Your task to perform on an android device: toggle notification dots Image 0: 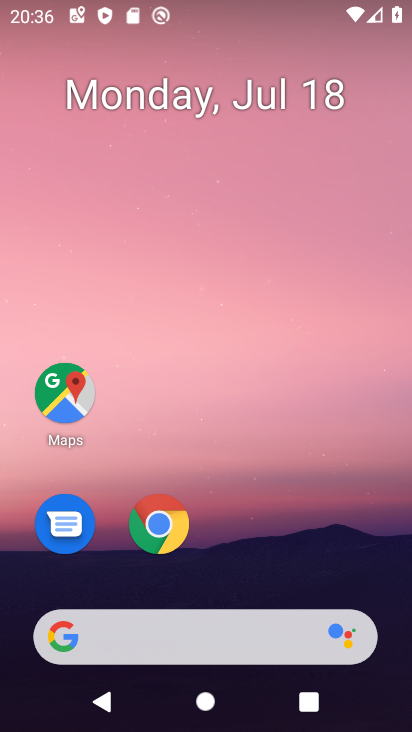
Step 0: drag from (234, 529) to (254, 68)
Your task to perform on an android device: toggle notification dots Image 1: 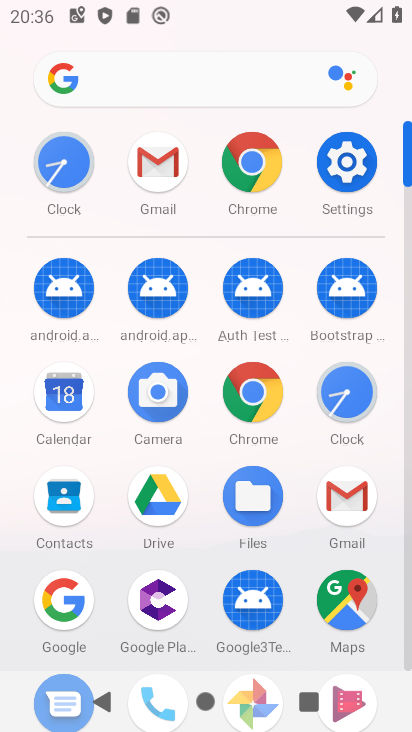
Step 1: click (334, 159)
Your task to perform on an android device: toggle notification dots Image 2: 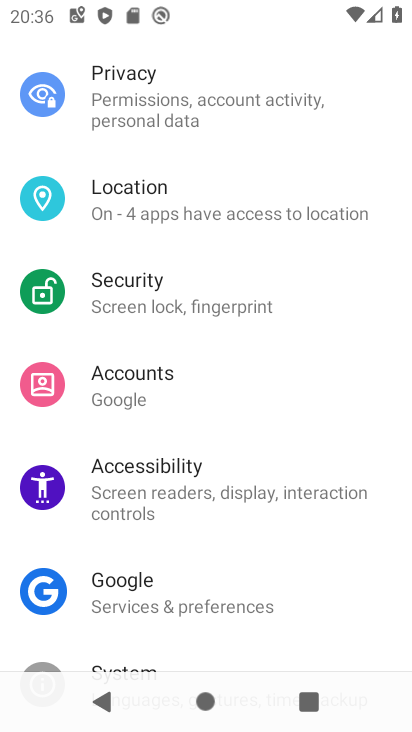
Step 2: drag from (230, 161) to (274, 661)
Your task to perform on an android device: toggle notification dots Image 3: 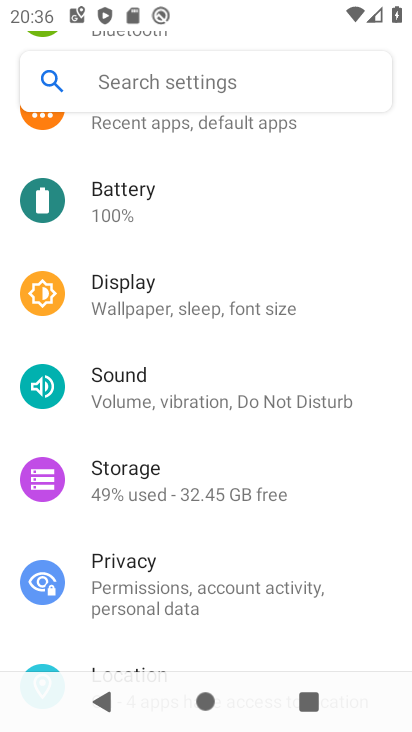
Step 3: drag from (236, 215) to (274, 563)
Your task to perform on an android device: toggle notification dots Image 4: 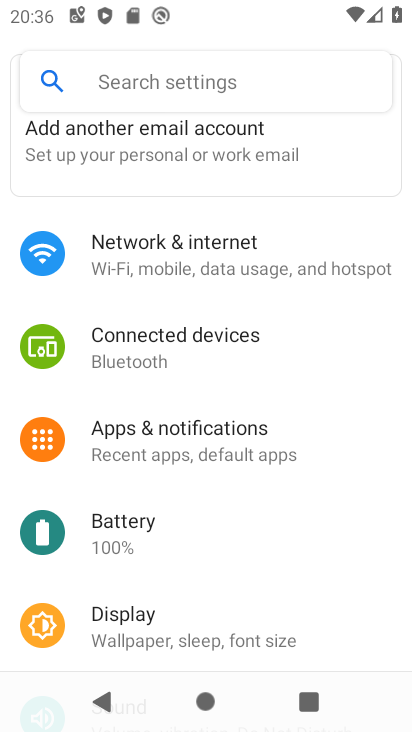
Step 4: click (231, 434)
Your task to perform on an android device: toggle notification dots Image 5: 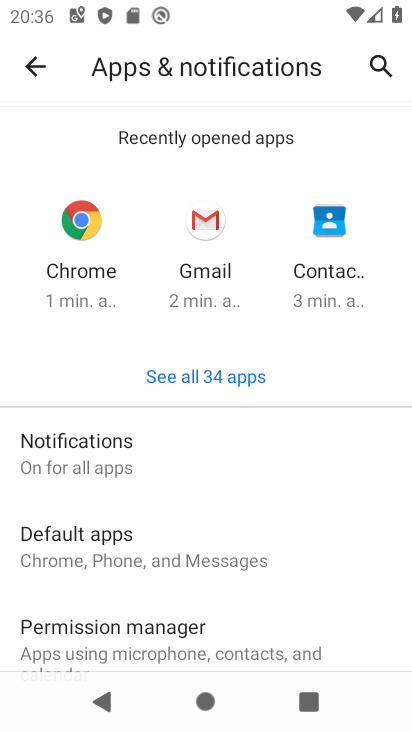
Step 5: click (115, 452)
Your task to perform on an android device: toggle notification dots Image 6: 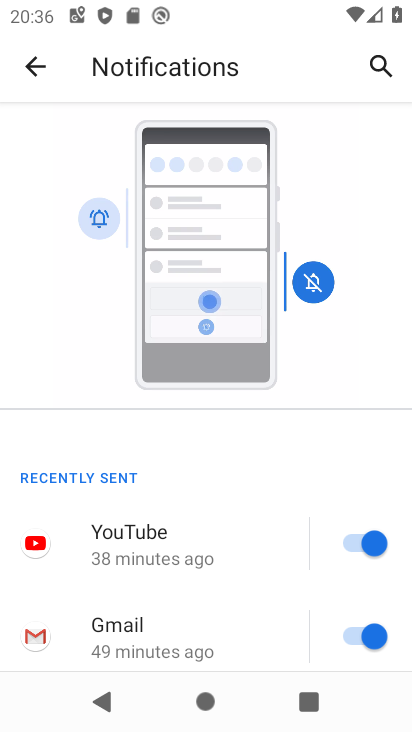
Step 6: drag from (241, 564) to (225, 137)
Your task to perform on an android device: toggle notification dots Image 7: 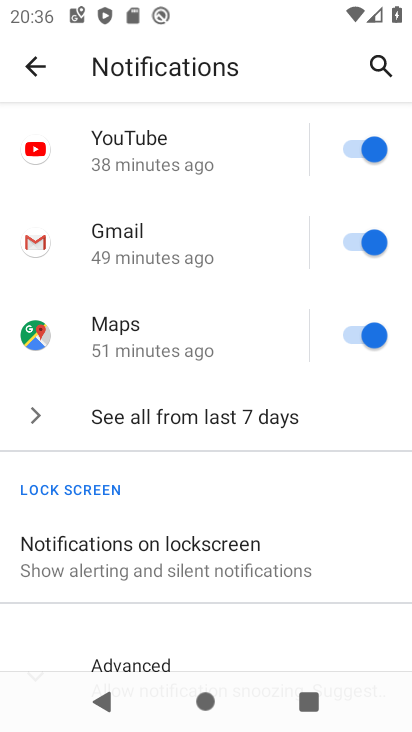
Step 7: drag from (201, 491) to (211, 167)
Your task to perform on an android device: toggle notification dots Image 8: 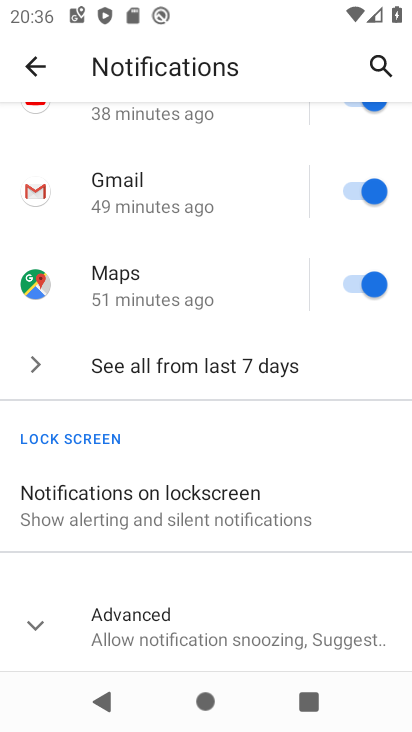
Step 8: click (36, 618)
Your task to perform on an android device: toggle notification dots Image 9: 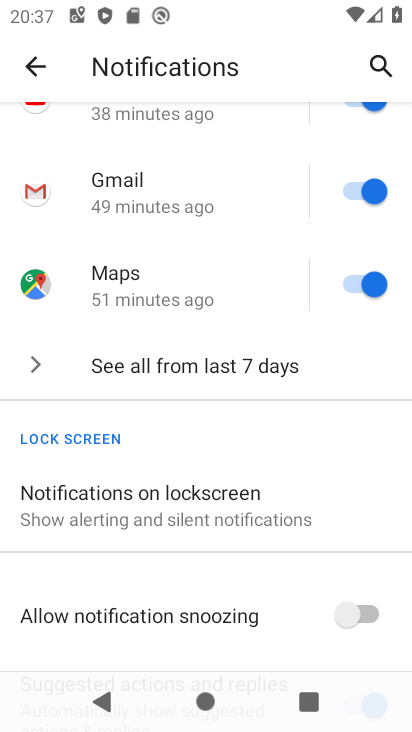
Step 9: drag from (199, 567) to (217, 302)
Your task to perform on an android device: toggle notification dots Image 10: 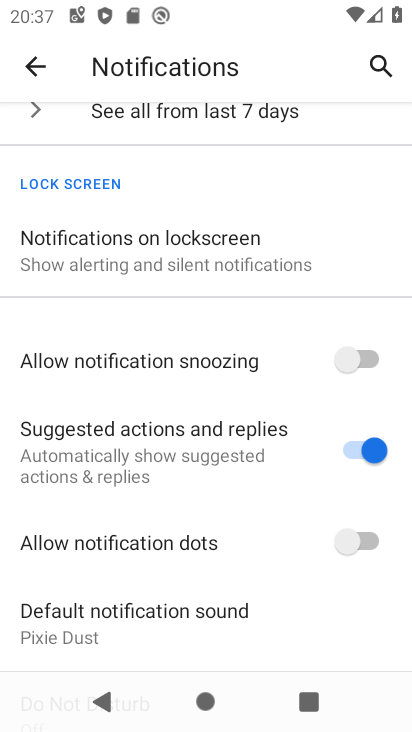
Step 10: click (359, 537)
Your task to perform on an android device: toggle notification dots Image 11: 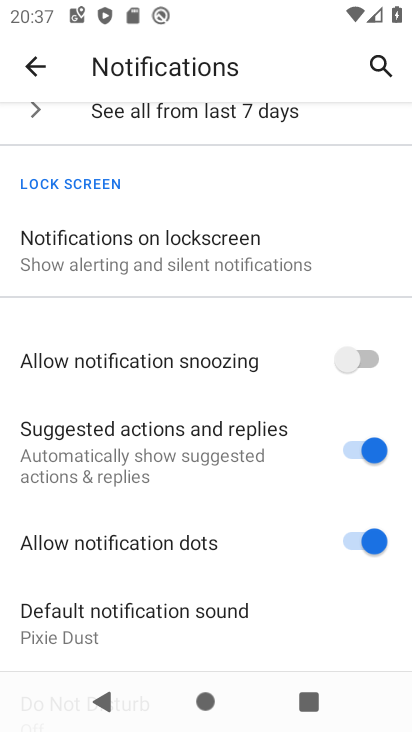
Step 11: task complete